Your task to perform on an android device: Go to Google Image 0: 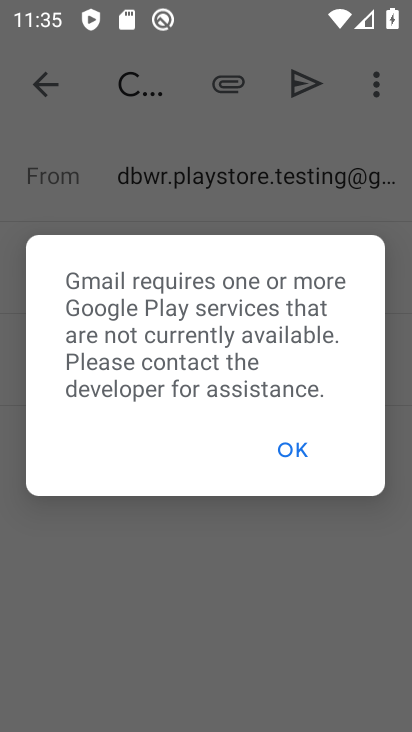
Step 0: press home button
Your task to perform on an android device: Go to Google Image 1: 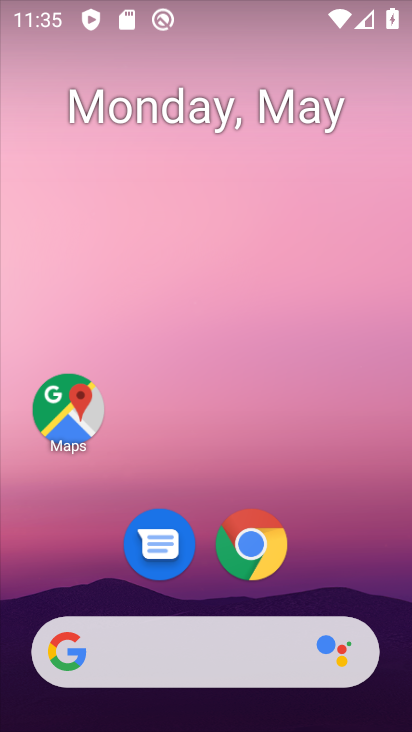
Step 1: click (71, 656)
Your task to perform on an android device: Go to Google Image 2: 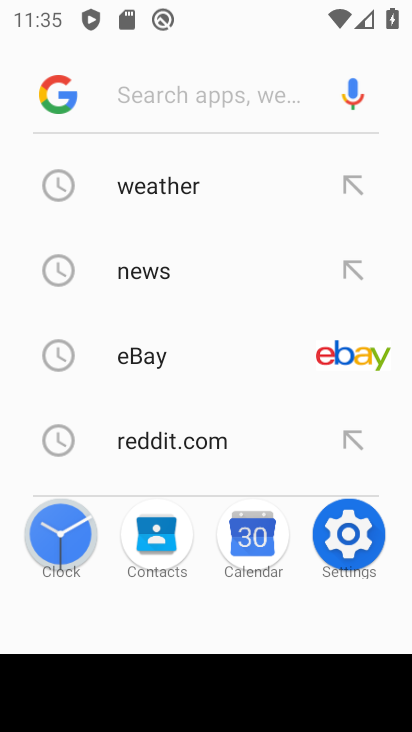
Step 2: click (59, 97)
Your task to perform on an android device: Go to Google Image 3: 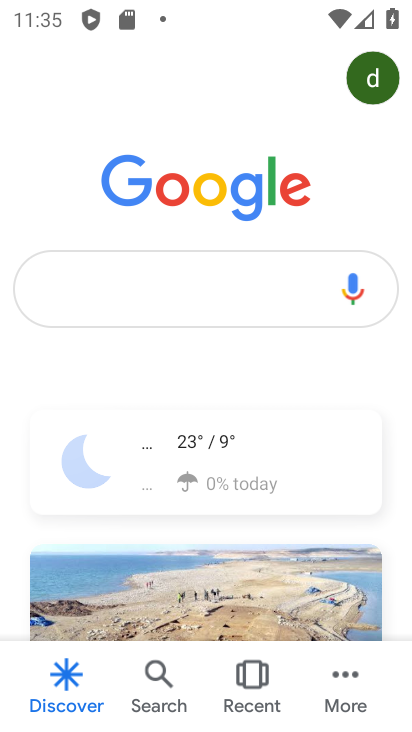
Step 3: task complete